Your task to perform on an android device: create a new album in the google photos Image 0: 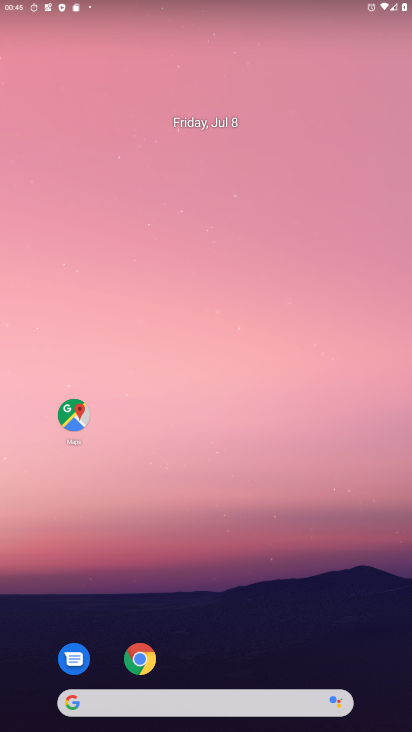
Step 0: drag from (187, 674) to (217, 15)
Your task to perform on an android device: create a new album in the google photos Image 1: 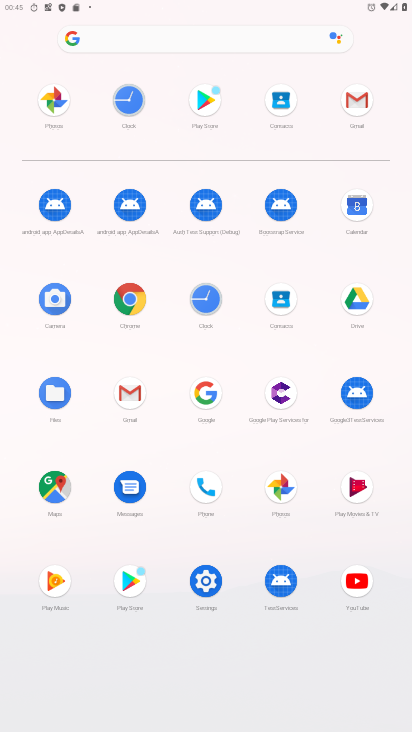
Step 1: click (283, 484)
Your task to perform on an android device: create a new album in the google photos Image 2: 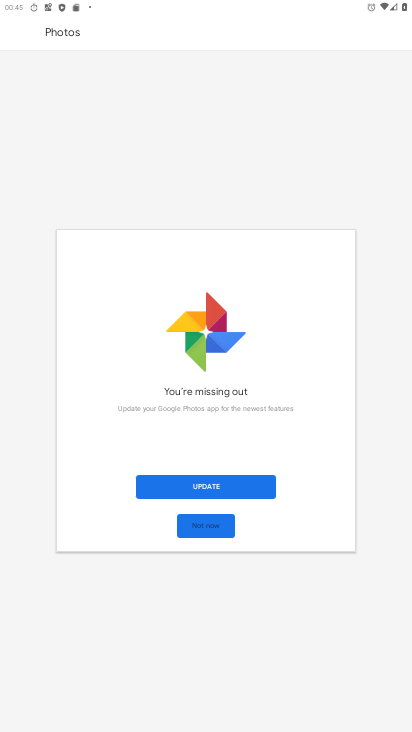
Step 2: click (220, 529)
Your task to perform on an android device: create a new album in the google photos Image 3: 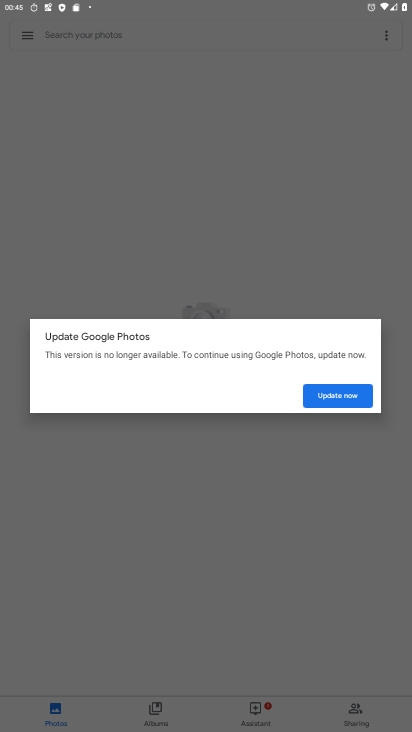
Step 3: click (329, 402)
Your task to perform on an android device: create a new album in the google photos Image 4: 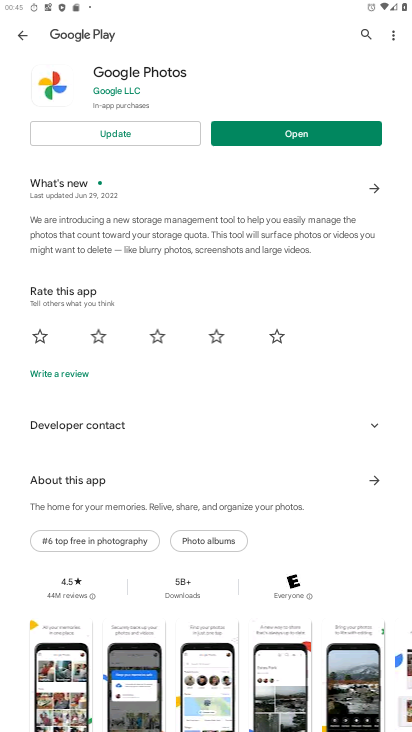
Step 4: click (293, 133)
Your task to perform on an android device: create a new album in the google photos Image 5: 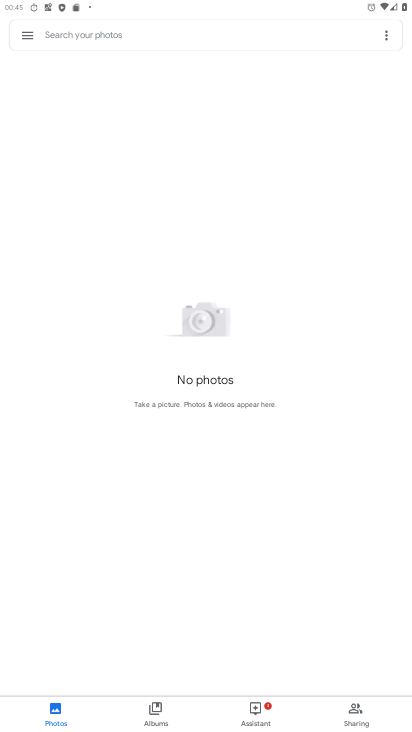
Step 5: task complete